Your task to perform on an android device: clear history in the chrome app Image 0: 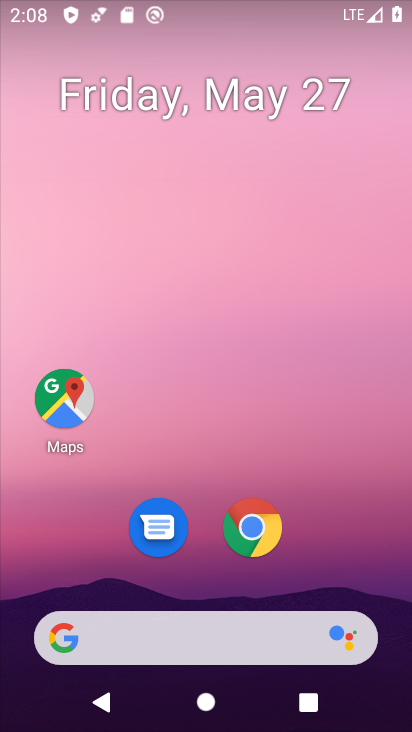
Step 0: click (233, 515)
Your task to perform on an android device: clear history in the chrome app Image 1: 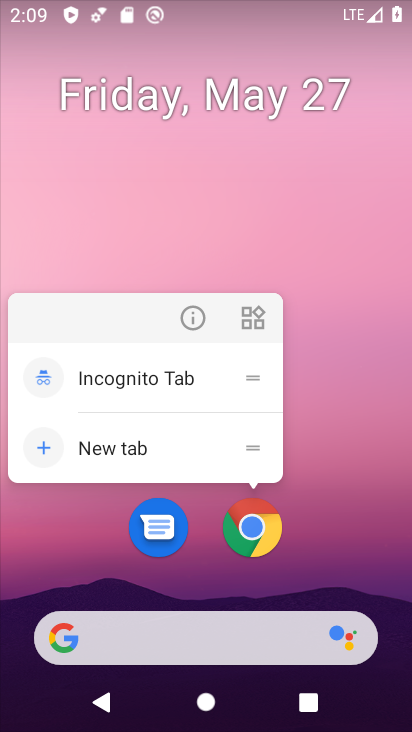
Step 1: click (264, 527)
Your task to perform on an android device: clear history in the chrome app Image 2: 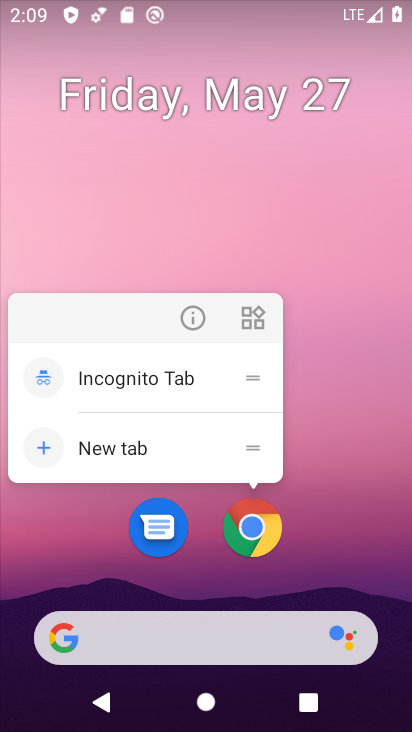
Step 2: click (260, 523)
Your task to perform on an android device: clear history in the chrome app Image 3: 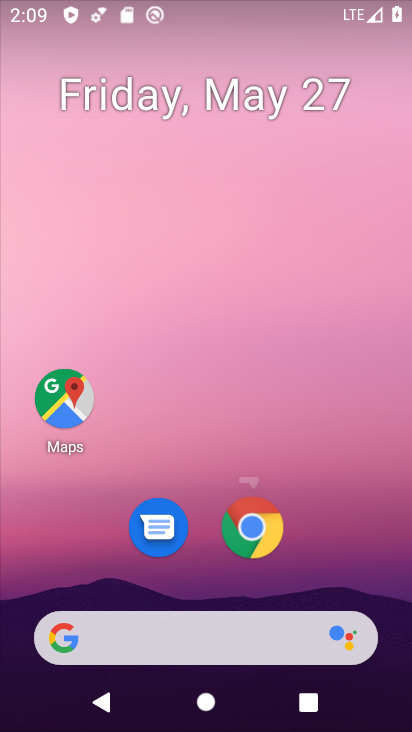
Step 3: click (260, 523)
Your task to perform on an android device: clear history in the chrome app Image 4: 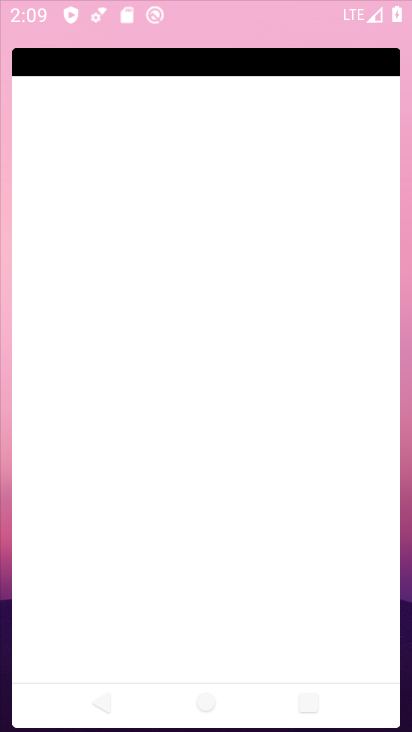
Step 4: click (260, 523)
Your task to perform on an android device: clear history in the chrome app Image 5: 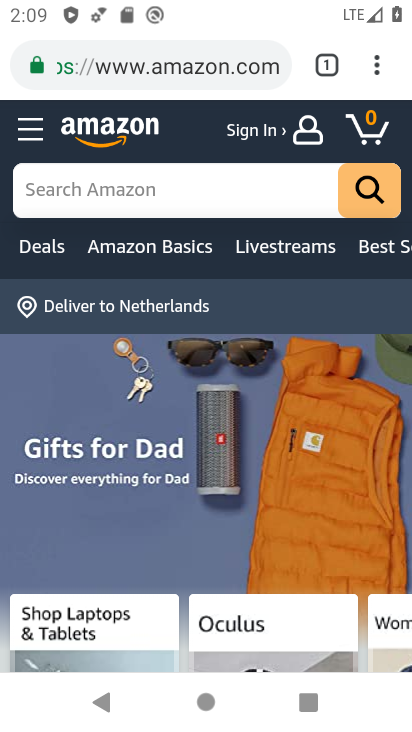
Step 5: click (378, 65)
Your task to perform on an android device: clear history in the chrome app Image 6: 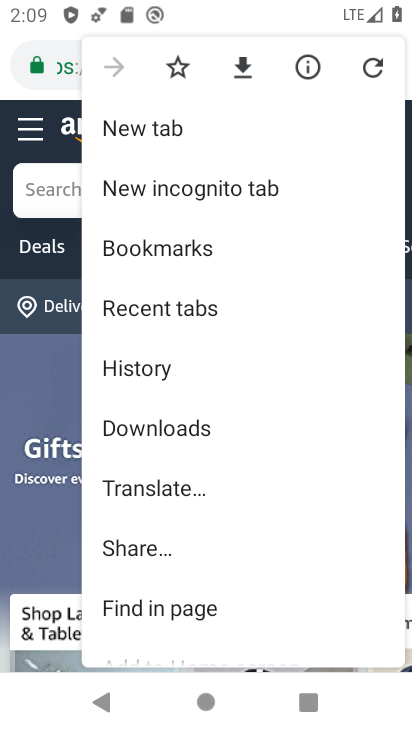
Step 6: click (151, 367)
Your task to perform on an android device: clear history in the chrome app Image 7: 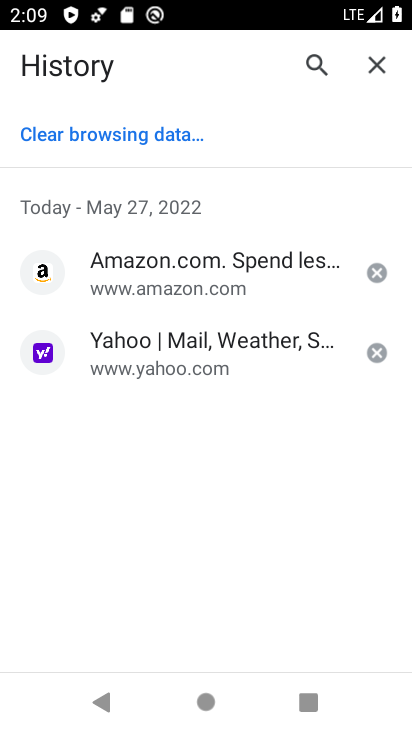
Step 7: click (120, 142)
Your task to perform on an android device: clear history in the chrome app Image 8: 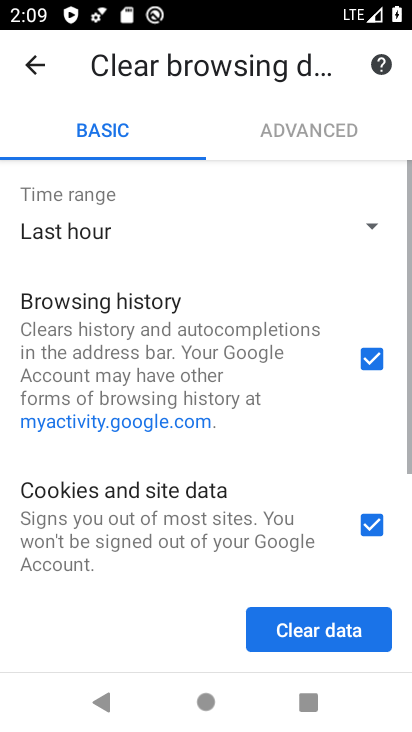
Step 8: click (329, 631)
Your task to perform on an android device: clear history in the chrome app Image 9: 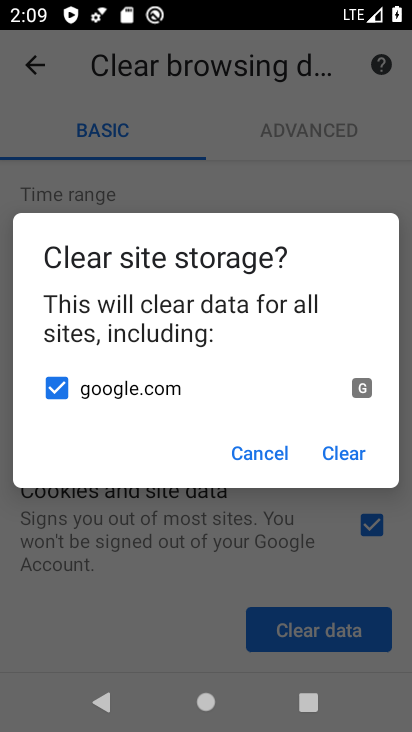
Step 9: click (340, 449)
Your task to perform on an android device: clear history in the chrome app Image 10: 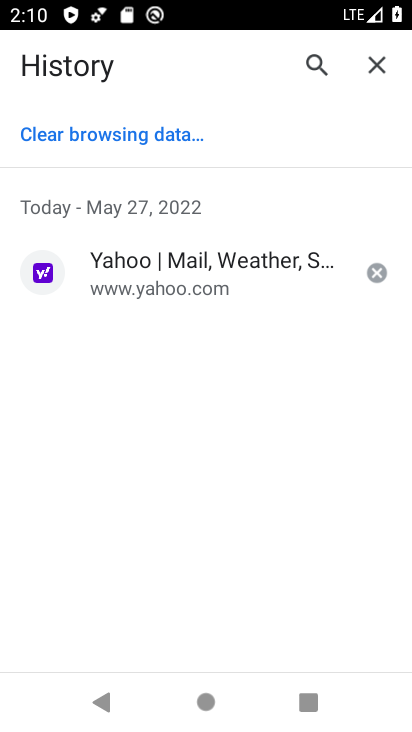
Step 10: click (111, 139)
Your task to perform on an android device: clear history in the chrome app Image 11: 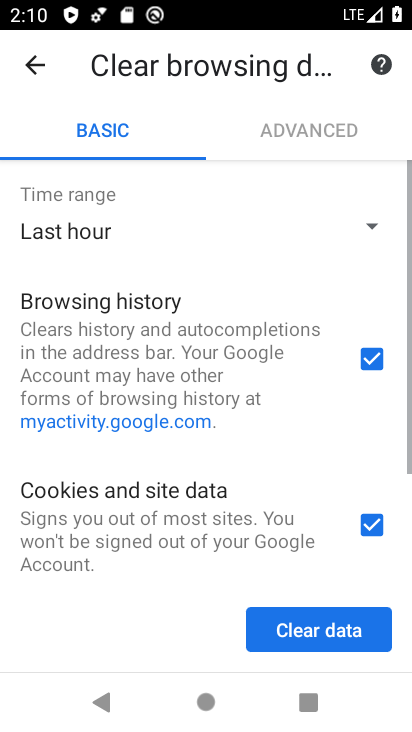
Step 11: task complete